Your task to perform on an android device: Open maps Image 0: 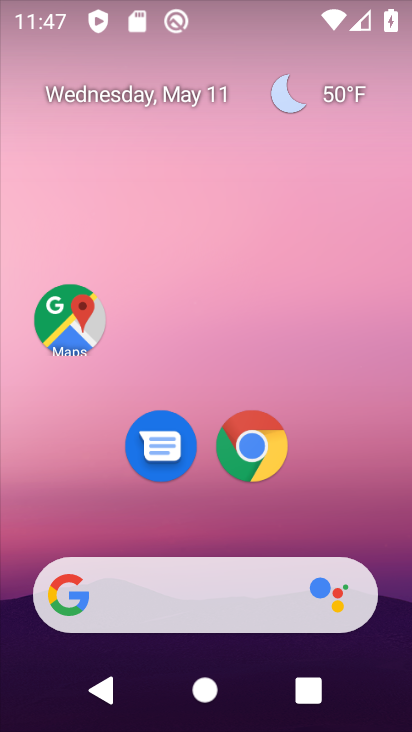
Step 0: click (74, 329)
Your task to perform on an android device: Open maps Image 1: 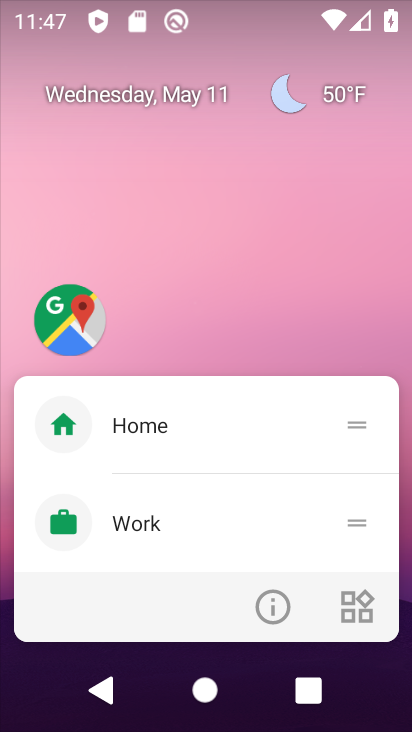
Step 1: click (74, 329)
Your task to perform on an android device: Open maps Image 2: 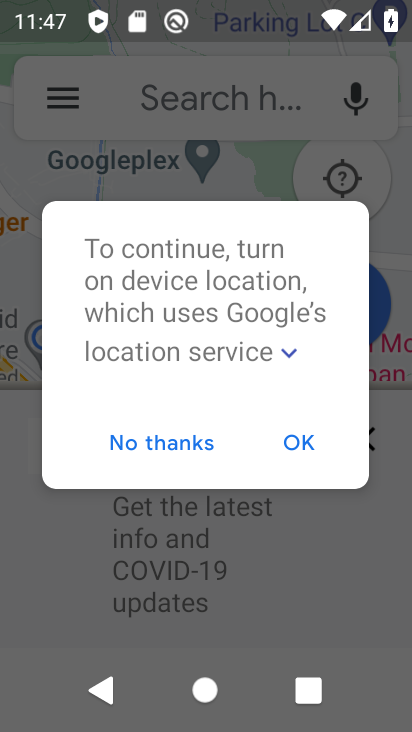
Step 2: click (94, 372)
Your task to perform on an android device: Open maps Image 3: 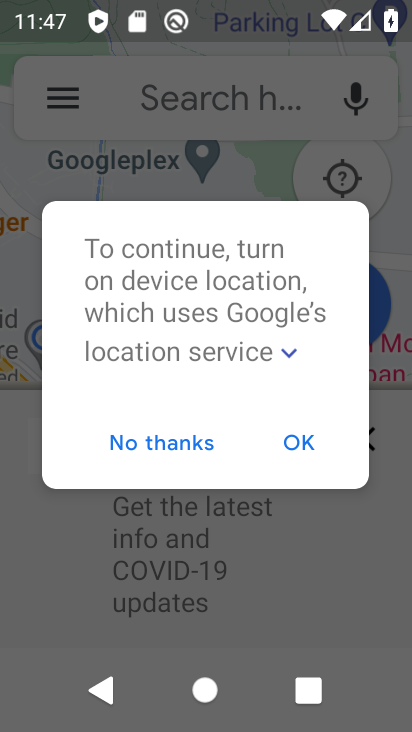
Step 3: click (296, 446)
Your task to perform on an android device: Open maps Image 4: 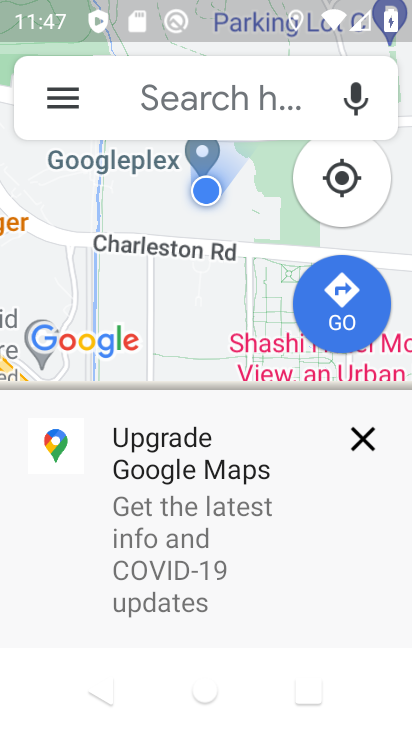
Step 4: task complete